Your task to perform on an android device: check google app version Image 0: 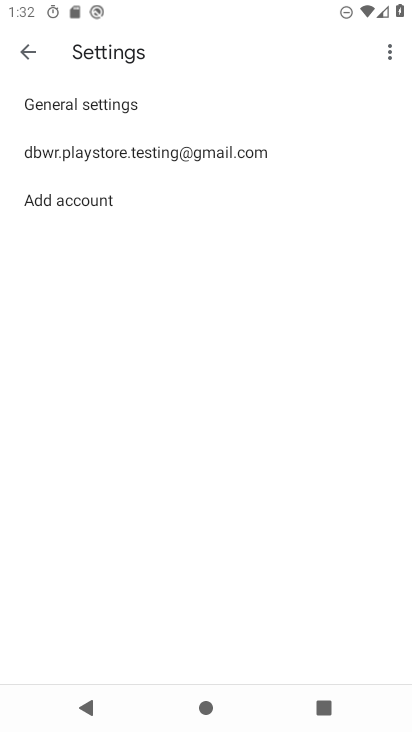
Step 0: press home button
Your task to perform on an android device: check google app version Image 1: 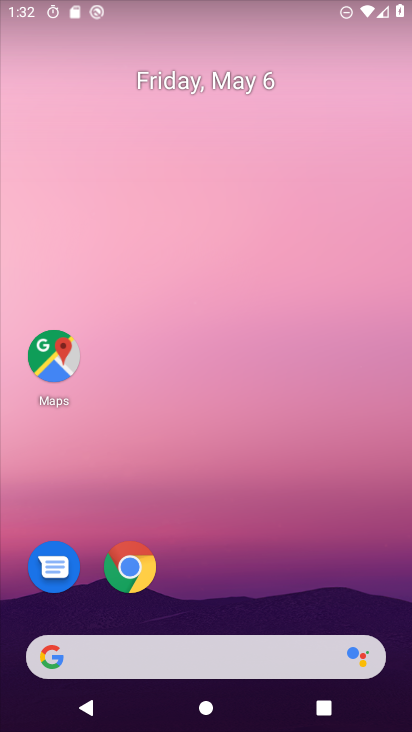
Step 1: drag from (289, 614) to (259, 33)
Your task to perform on an android device: check google app version Image 2: 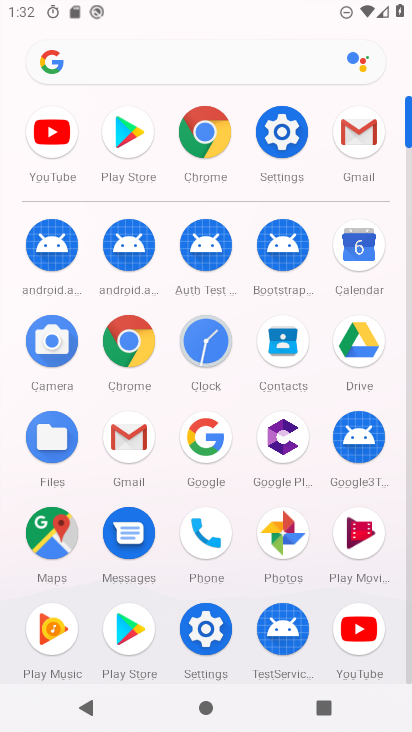
Step 2: click (206, 444)
Your task to perform on an android device: check google app version Image 3: 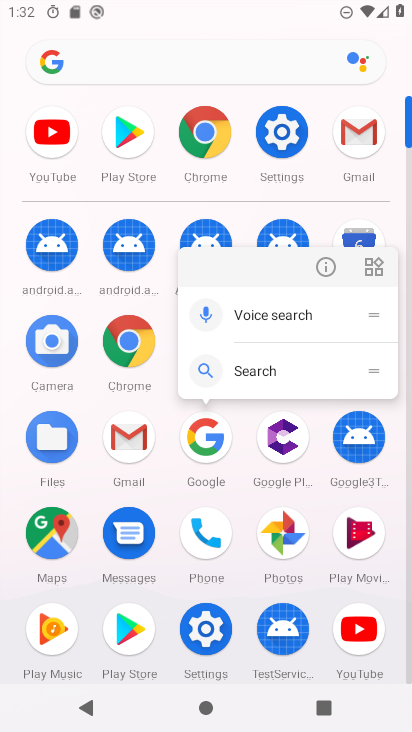
Step 3: click (321, 271)
Your task to perform on an android device: check google app version Image 4: 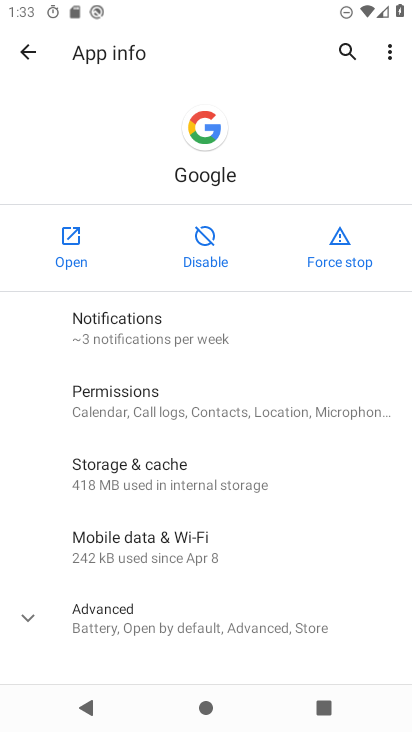
Step 4: drag from (235, 527) to (215, 143)
Your task to perform on an android device: check google app version Image 5: 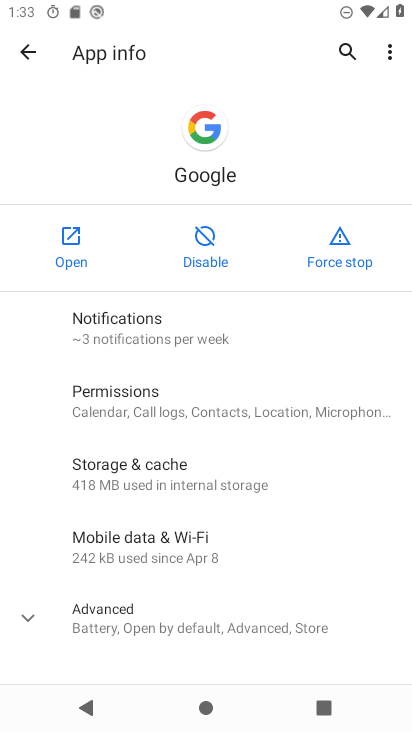
Step 5: click (32, 624)
Your task to perform on an android device: check google app version Image 6: 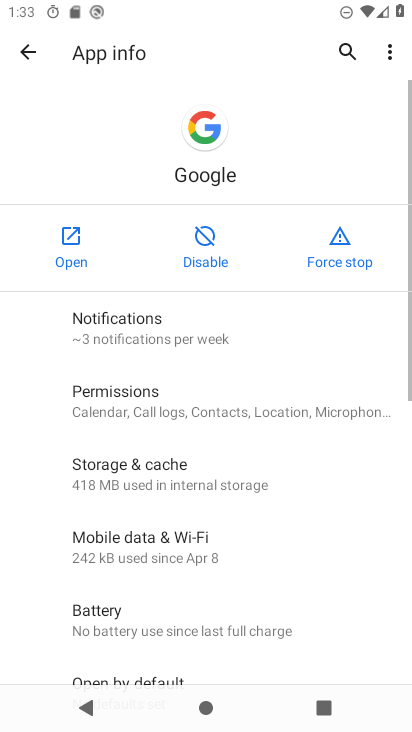
Step 6: drag from (200, 627) to (189, 162)
Your task to perform on an android device: check google app version Image 7: 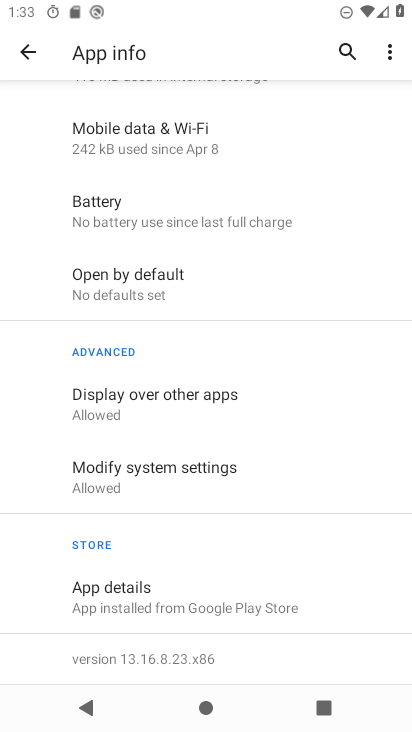
Step 7: drag from (225, 606) to (211, 322)
Your task to perform on an android device: check google app version Image 8: 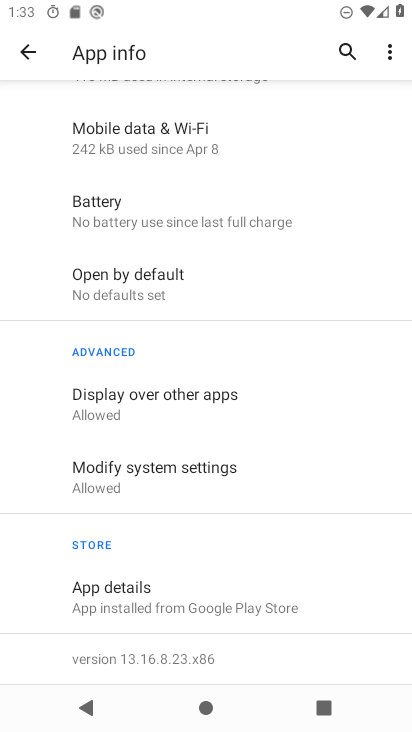
Step 8: click (133, 662)
Your task to perform on an android device: check google app version Image 9: 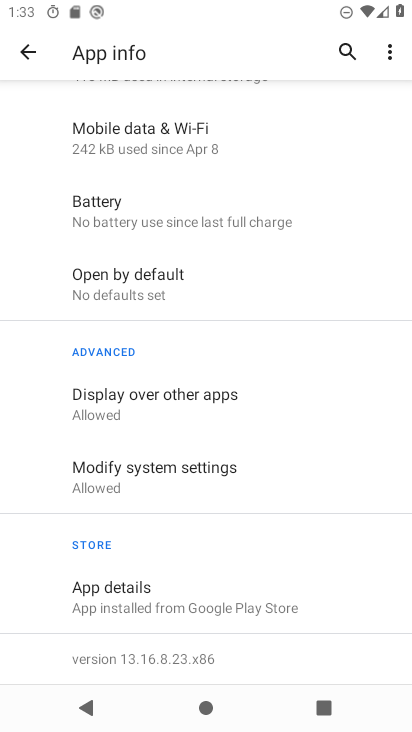
Step 9: task complete